Your task to perform on an android device: Set the phone to "Do not disturb". Image 0: 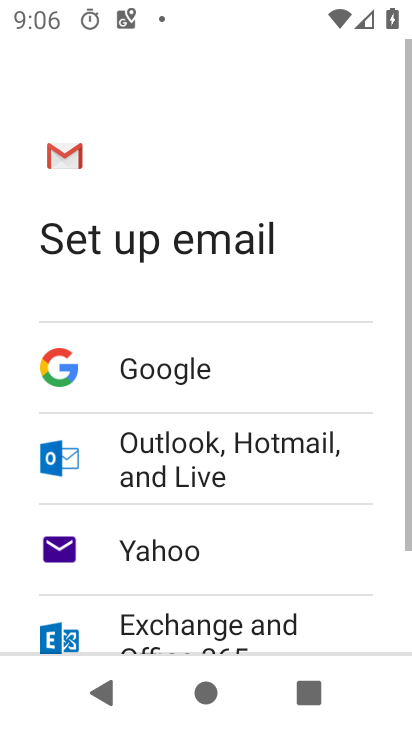
Step 0: press home button
Your task to perform on an android device: Set the phone to "Do not disturb". Image 1: 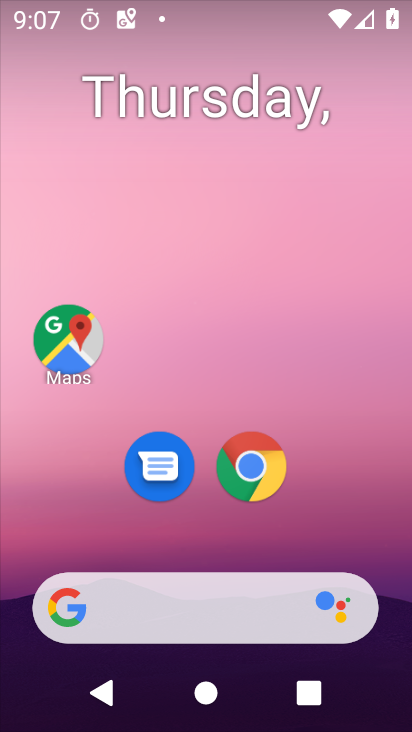
Step 1: drag from (233, 6) to (110, 549)
Your task to perform on an android device: Set the phone to "Do not disturb". Image 2: 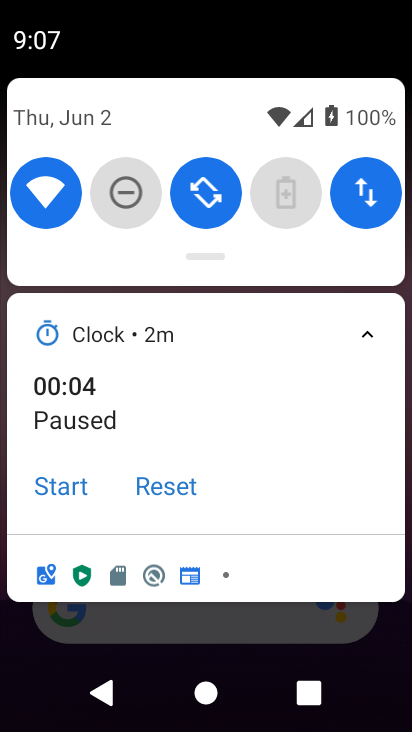
Step 2: click (116, 198)
Your task to perform on an android device: Set the phone to "Do not disturb". Image 3: 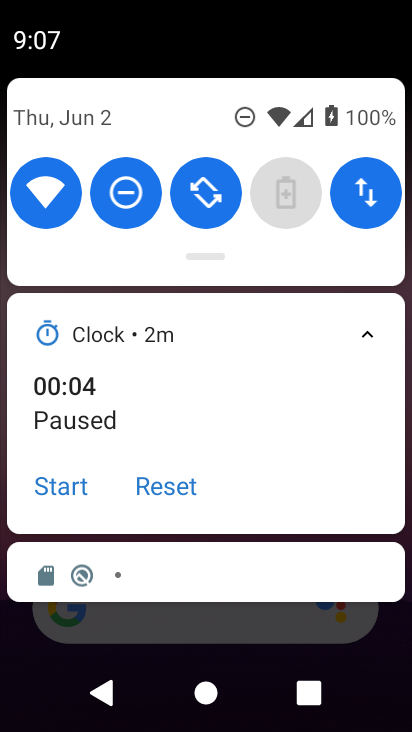
Step 3: task complete